Your task to perform on an android device: open app "Grab" Image 0: 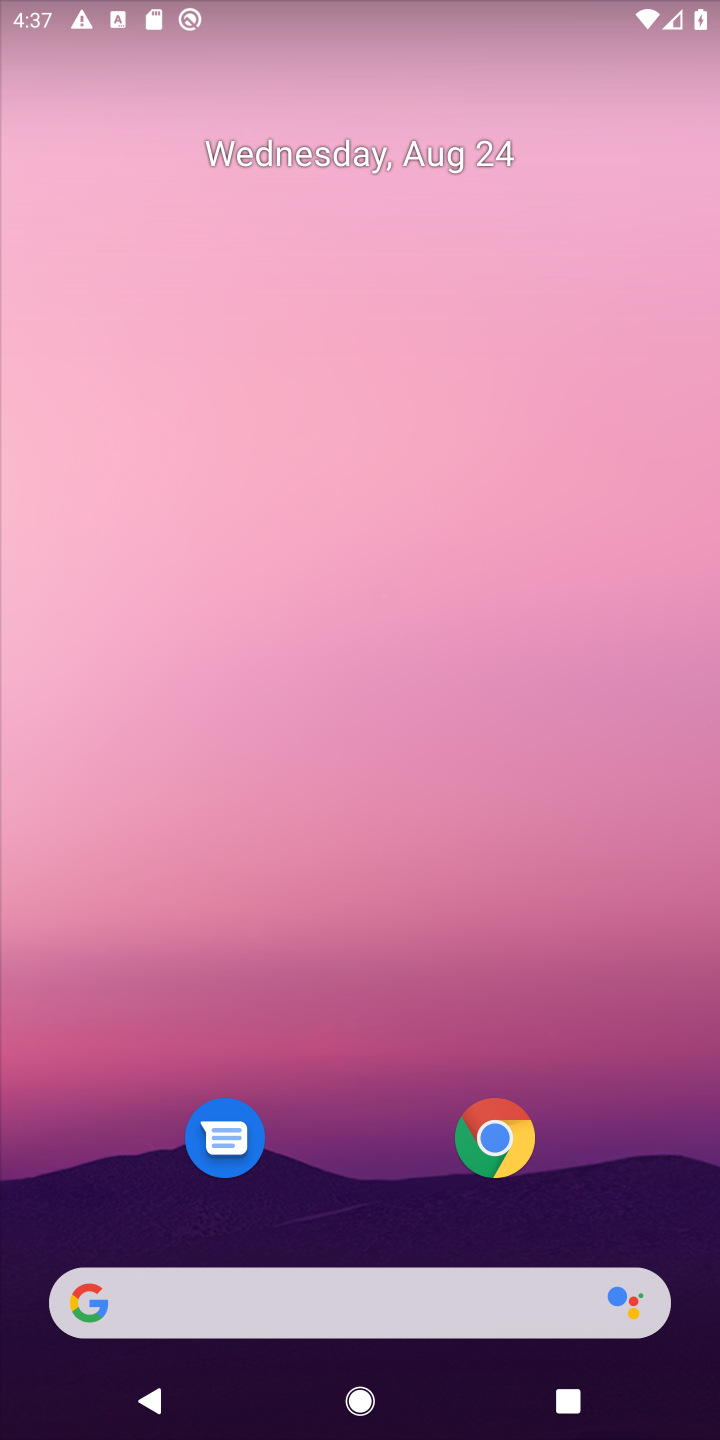
Step 0: press home button
Your task to perform on an android device: open app "Grab" Image 1: 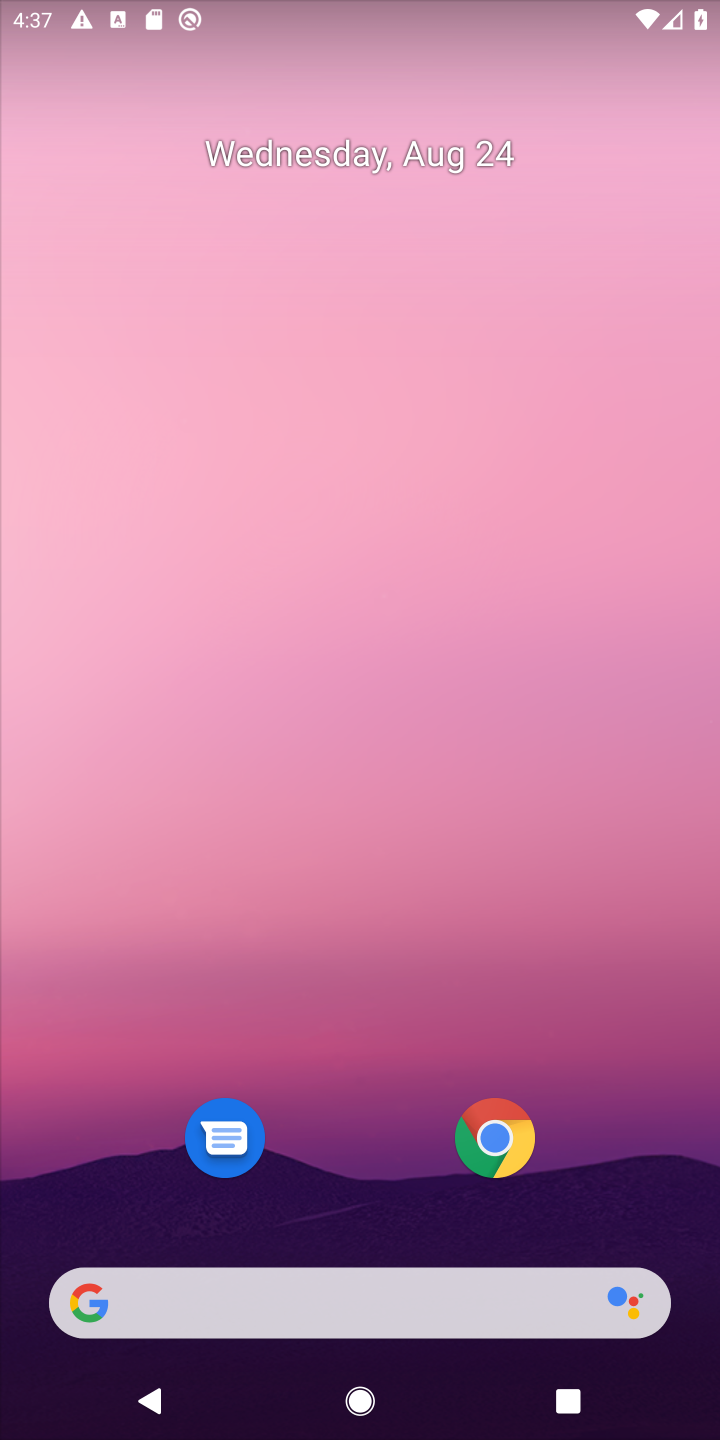
Step 1: drag from (328, 1201) to (397, 284)
Your task to perform on an android device: open app "Grab" Image 2: 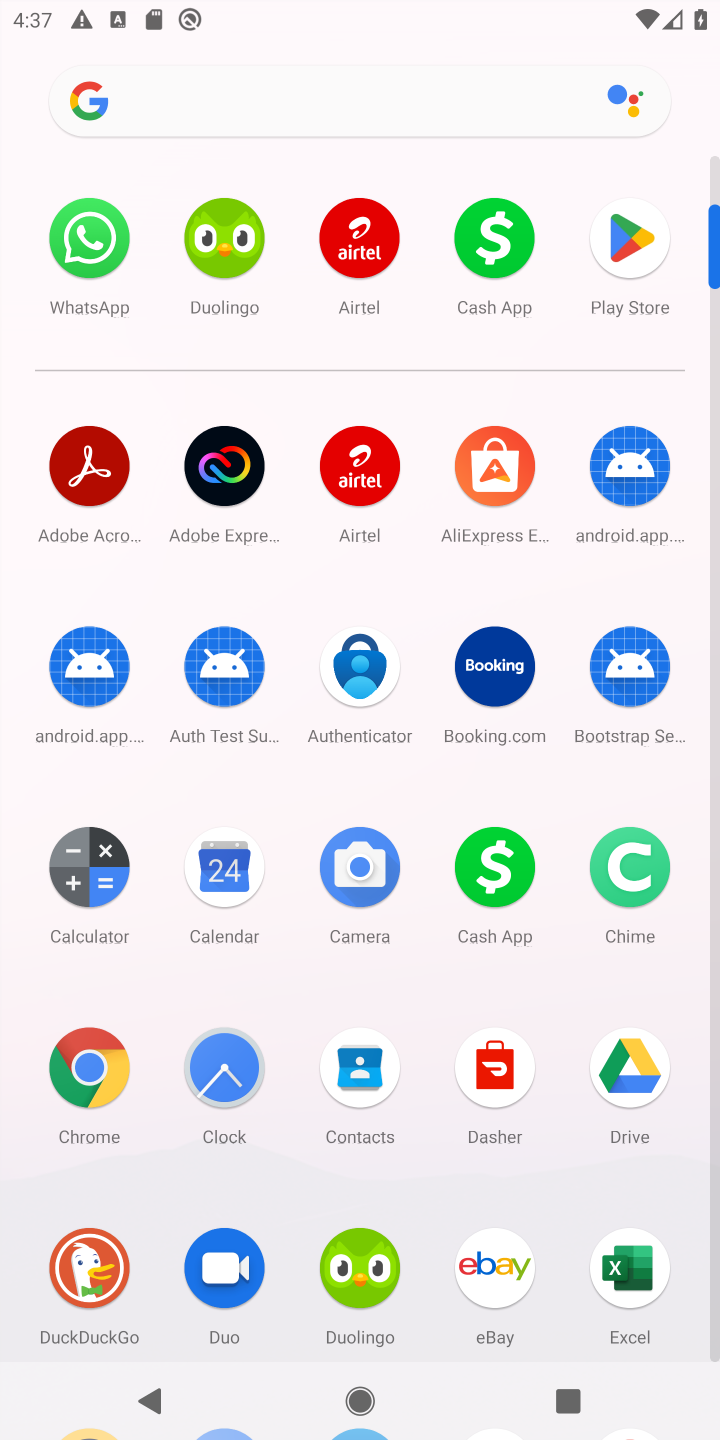
Step 2: click (632, 237)
Your task to perform on an android device: open app "Grab" Image 3: 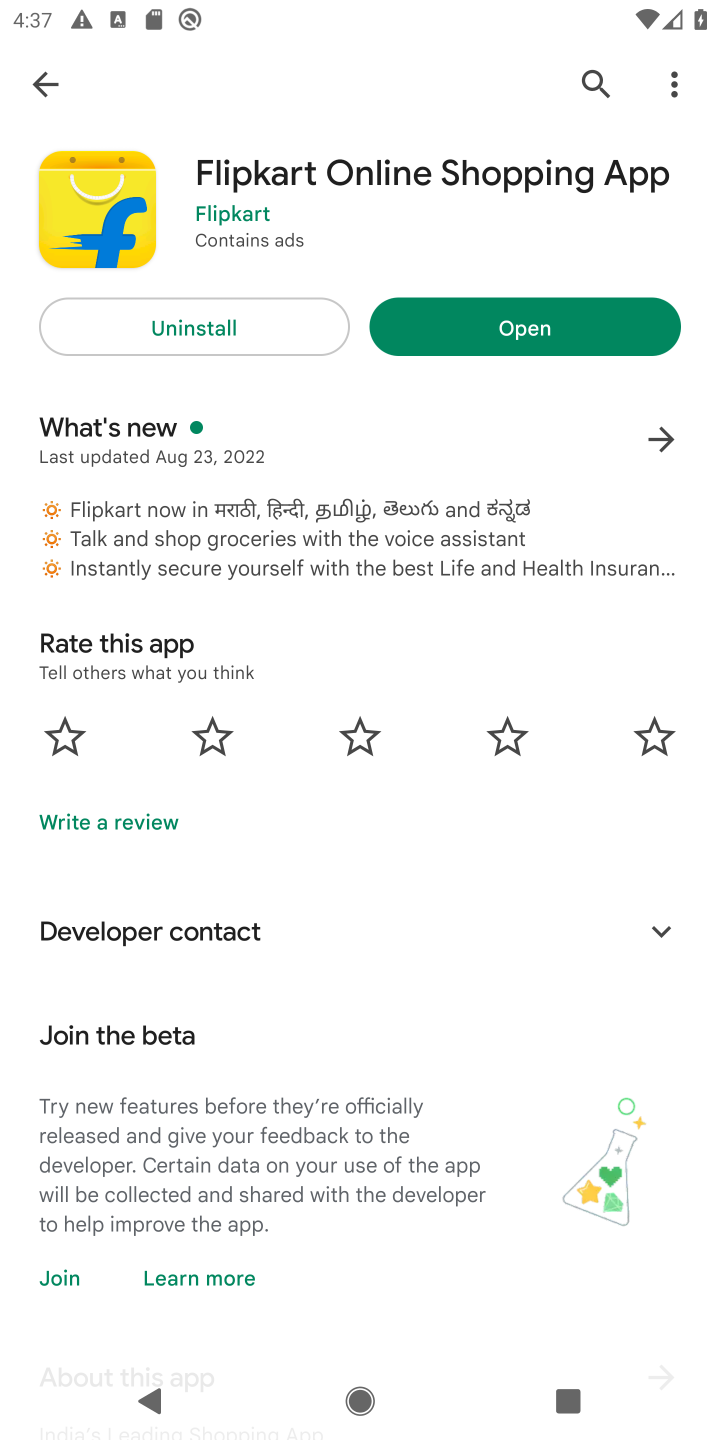
Step 3: click (593, 75)
Your task to perform on an android device: open app "Grab" Image 4: 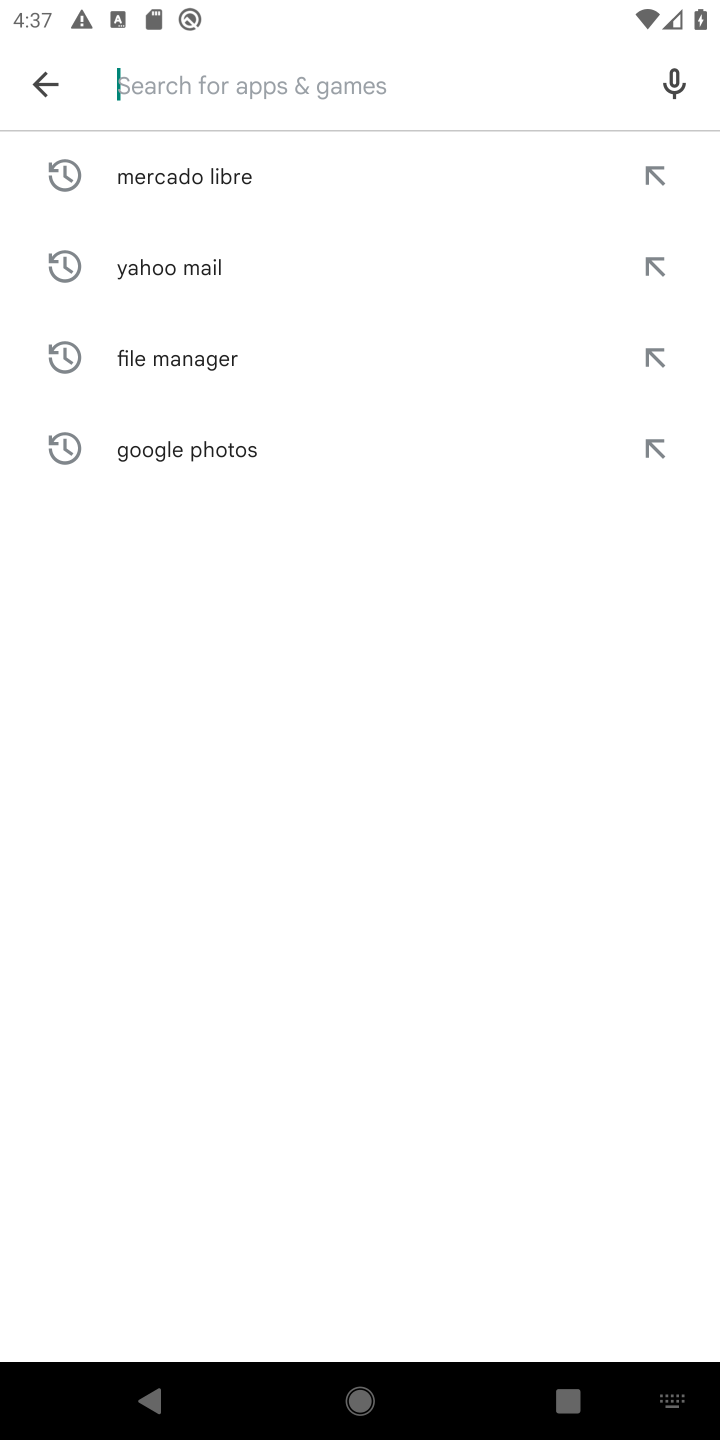
Step 4: type "Grab"
Your task to perform on an android device: open app "Grab" Image 5: 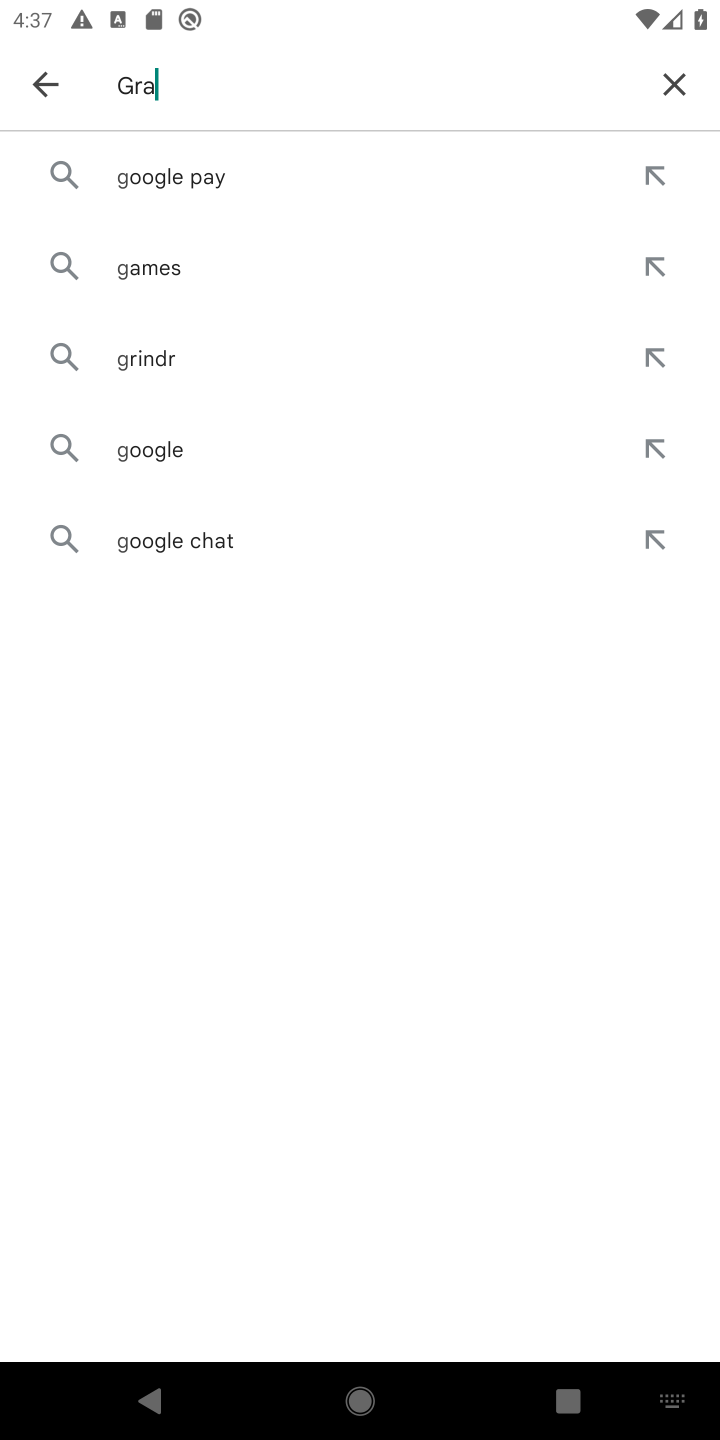
Step 5: type ""
Your task to perform on an android device: open app "Grab" Image 6: 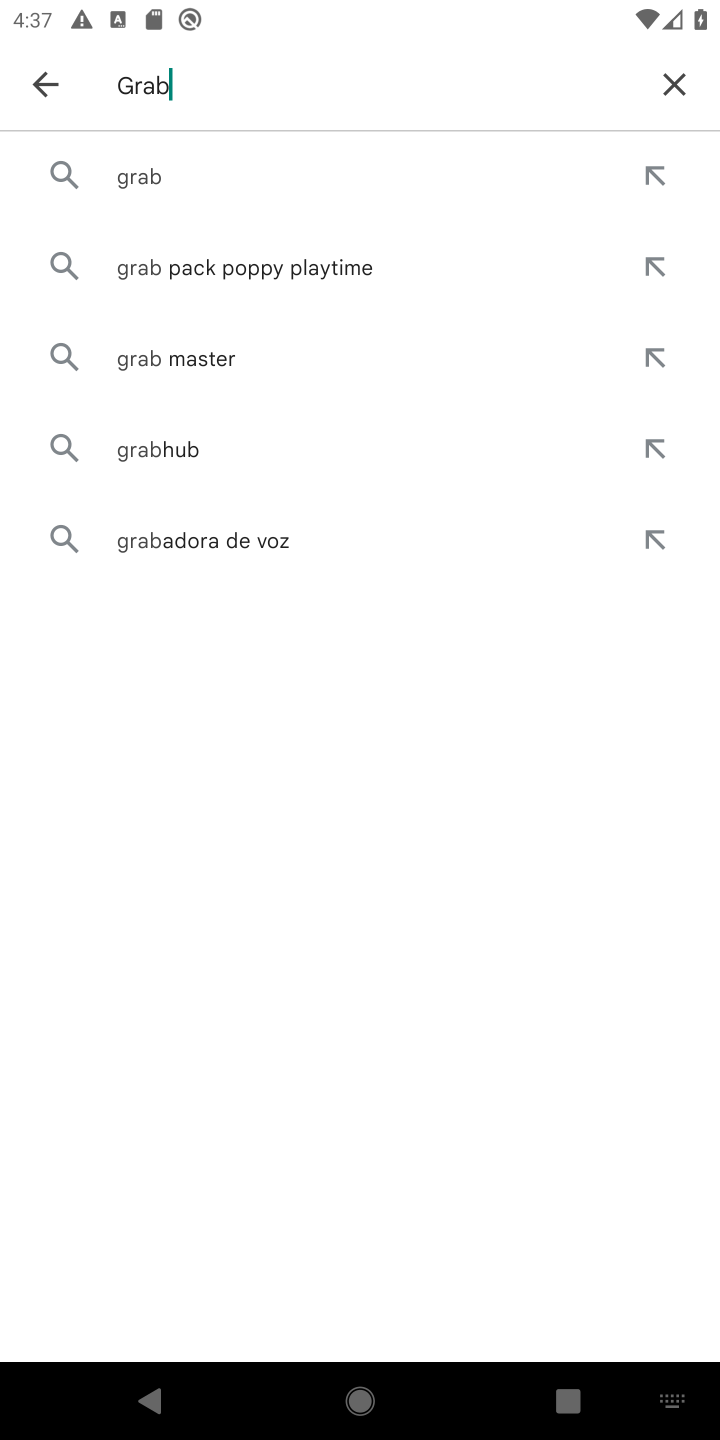
Step 6: click (148, 173)
Your task to perform on an android device: open app "Grab" Image 7: 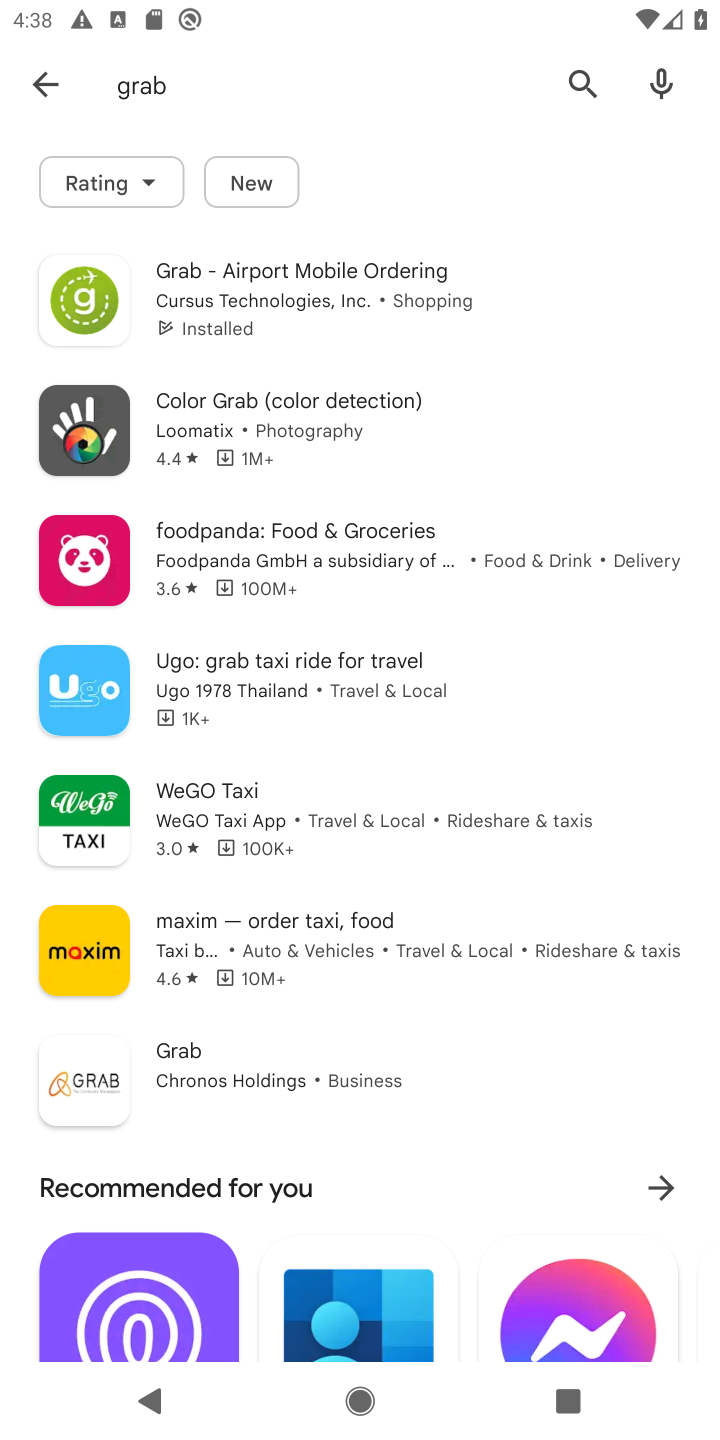
Step 7: click (282, 272)
Your task to perform on an android device: open app "Grab" Image 8: 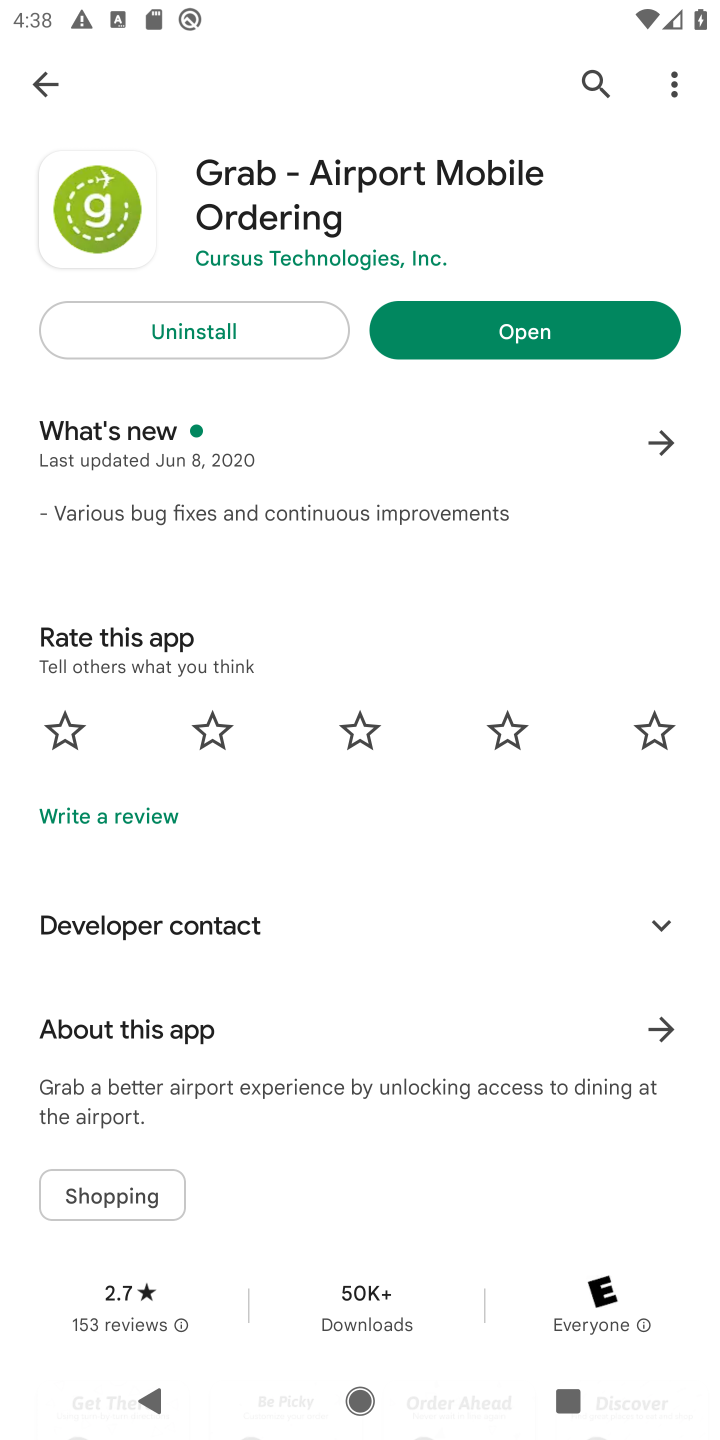
Step 8: click (557, 327)
Your task to perform on an android device: open app "Grab" Image 9: 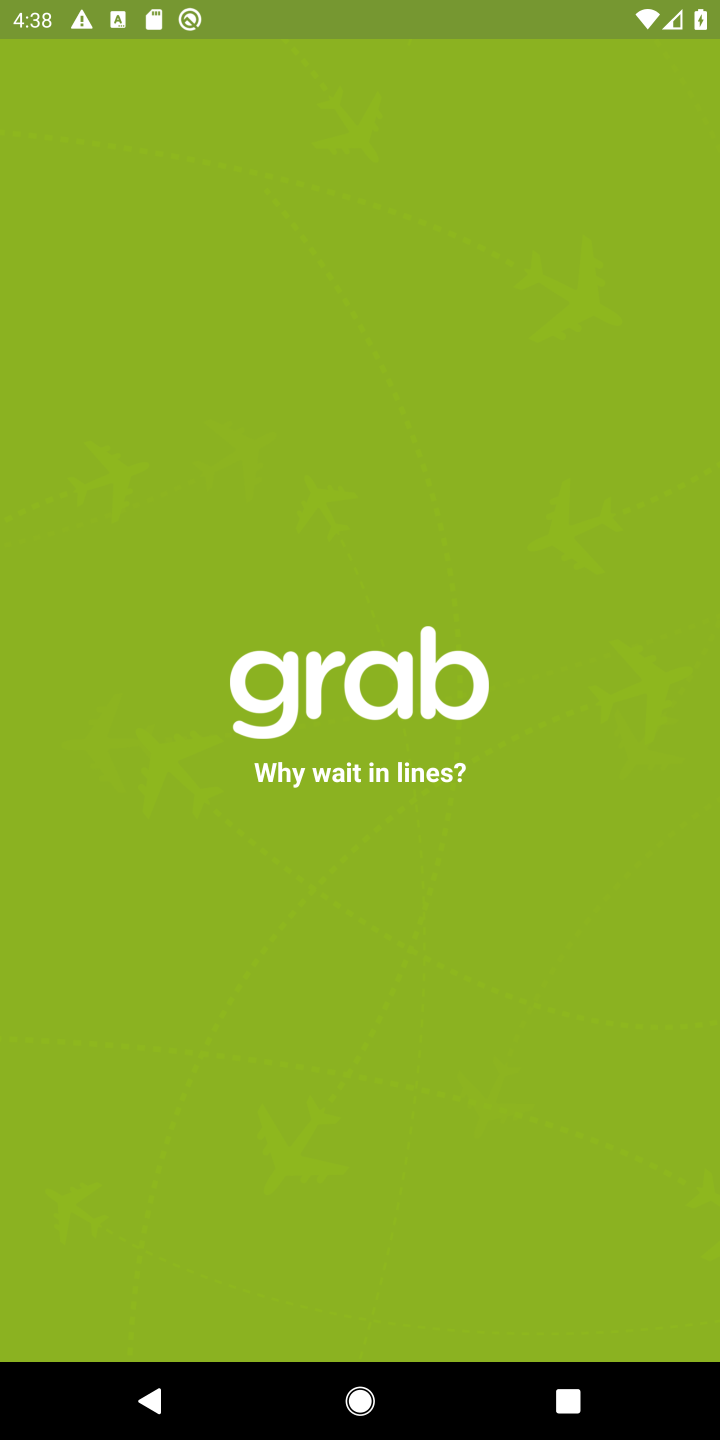
Step 9: task complete